Your task to perform on an android device: set default search engine in the chrome app Image 0: 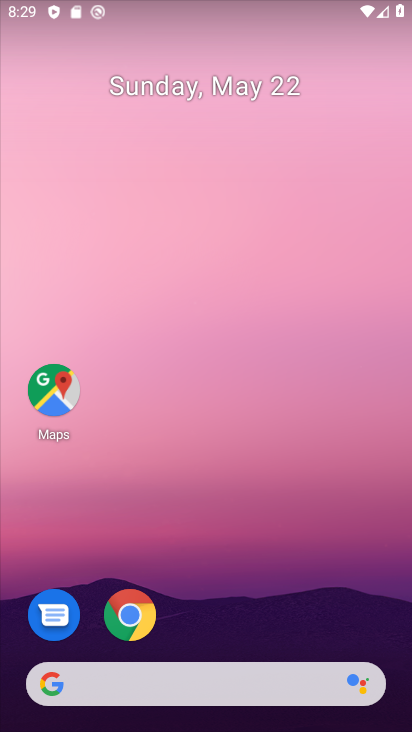
Step 0: drag from (314, 379) to (295, 229)
Your task to perform on an android device: set default search engine in the chrome app Image 1: 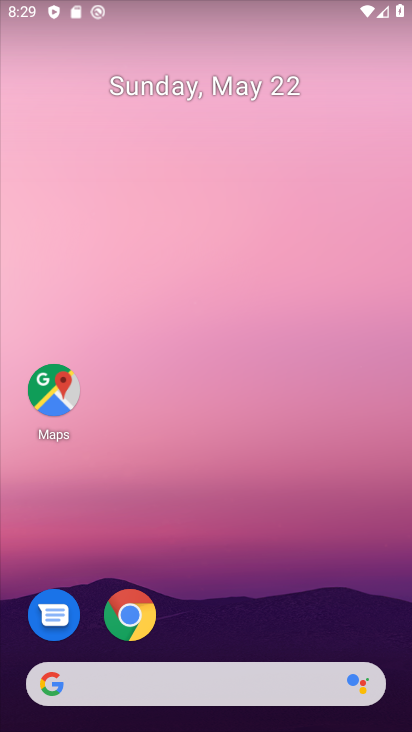
Step 1: click (119, 605)
Your task to perform on an android device: set default search engine in the chrome app Image 2: 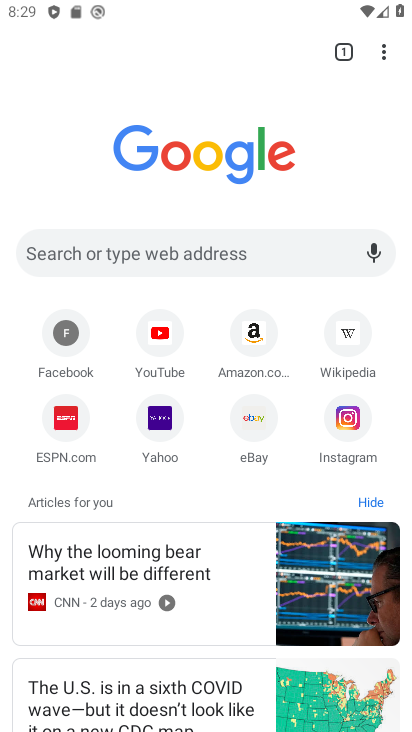
Step 2: click (387, 43)
Your task to perform on an android device: set default search engine in the chrome app Image 3: 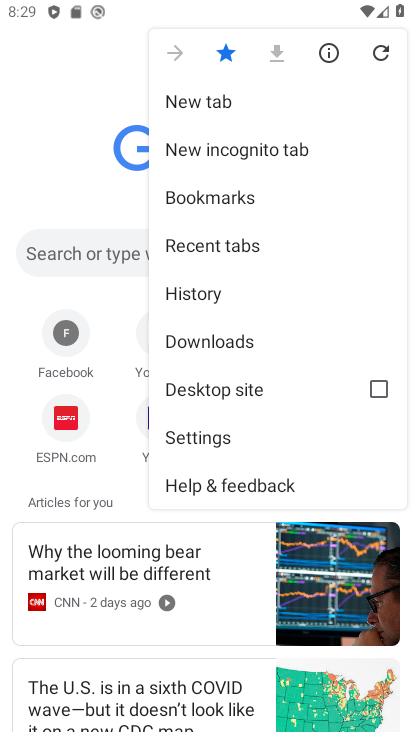
Step 3: click (225, 442)
Your task to perform on an android device: set default search engine in the chrome app Image 4: 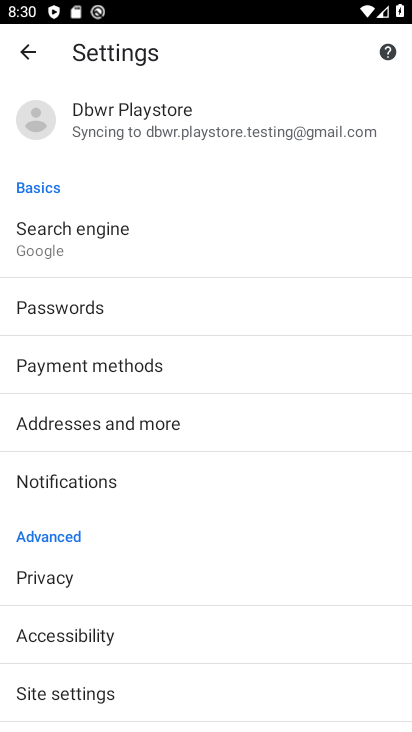
Step 4: drag from (204, 580) to (258, 225)
Your task to perform on an android device: set default search engine in the chrome app Image 5: 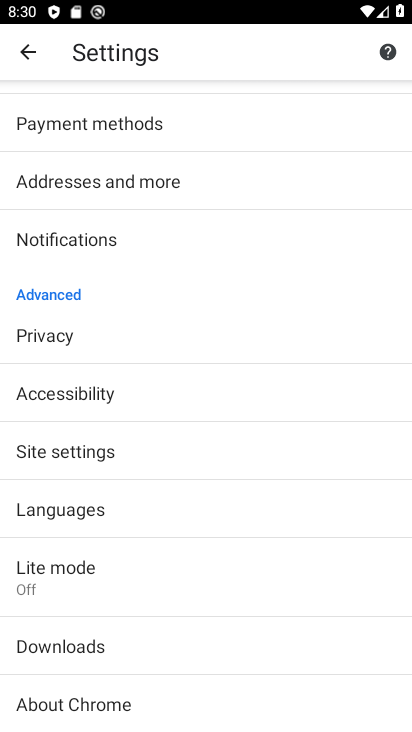
Step 5: drag from (225, 613) to (225, 434)
Your task to perform on an android device: set default search engine in the chrome app Image 6: 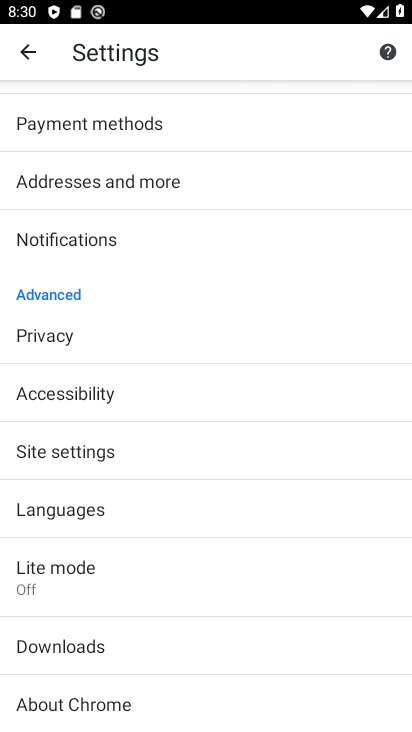
Step 6: drag from (201, 146) to (160, 593)
Your task to perform on an android device: set default search engine in the chrome app Image 7: 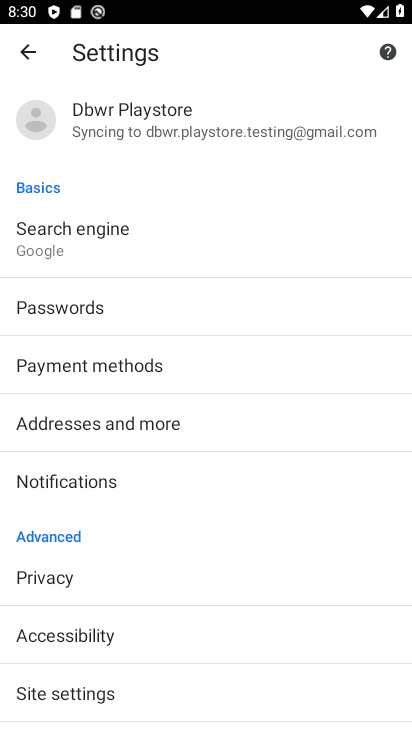
Step 7: click (128, 242)
Your task to perform on an android device: set default search engine in the chrome app Image 8: 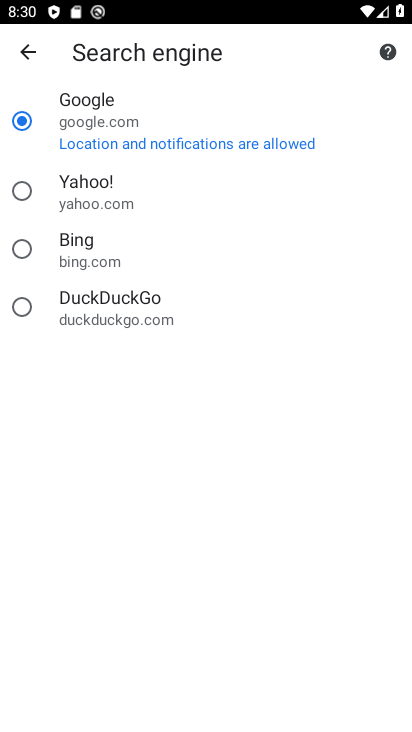
Step 8: click (75, 243)
Your task to perform on an android device: set default search engine in the chrome app Image 9: 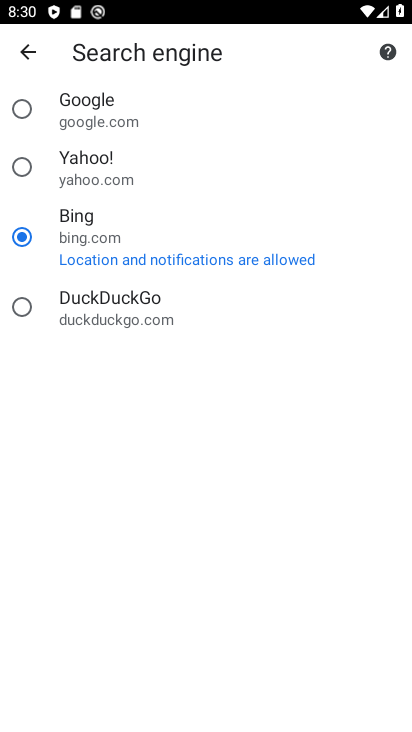
Step 9: task complete